Your task to perform on an android device: Open calendar and show me the first week of next month Image 0: 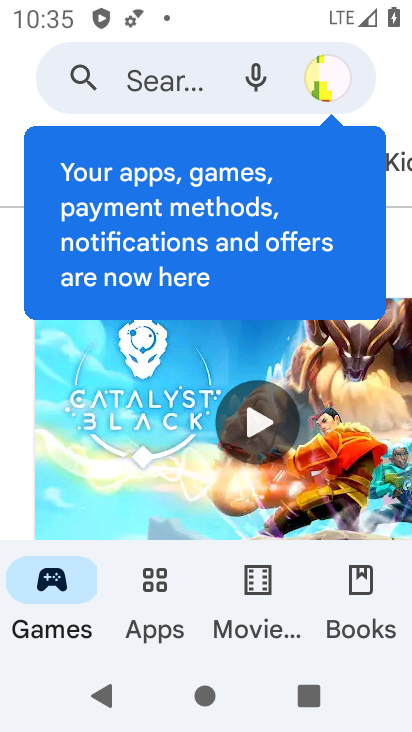
Step 0: press home button
Your task to perform on an android device: Open calendar and show me the first week of next month Image 1: 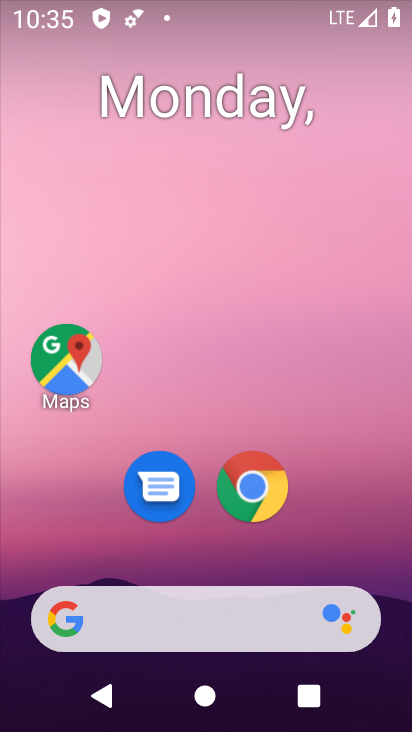
Step 1: drag from (60, 566) to (318, 177)
Your task to perform on an android device: Open calendar and show me the first week of next month Image 2: 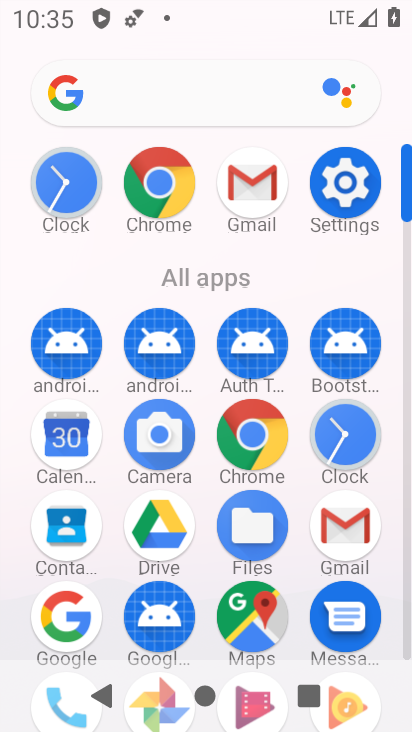
Step 2: click (75, 449)
Your task to perform on an android device: Open calendar and show me the first week of next month Image 3: 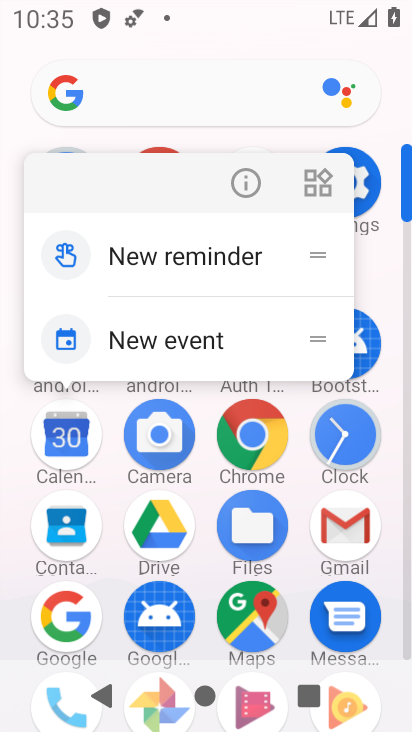
Step 3: press back button
Your task to perform on an android device: Open calendar and show me the first week of next month Image 4: 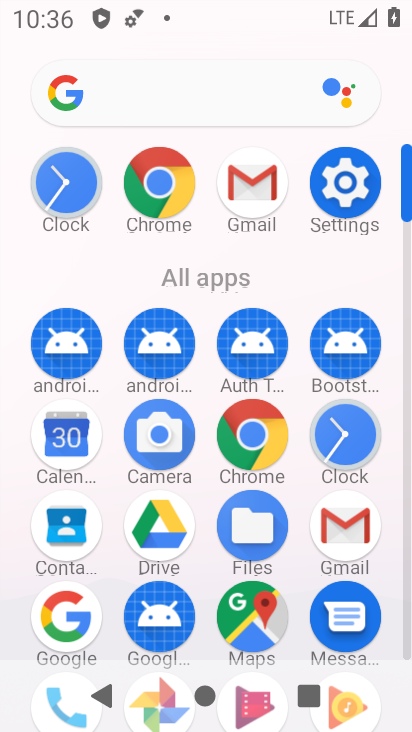
Step 4: click (62, 436)
Your task to perform on an android device: Open calendar and show me the first week of next month Image 5: 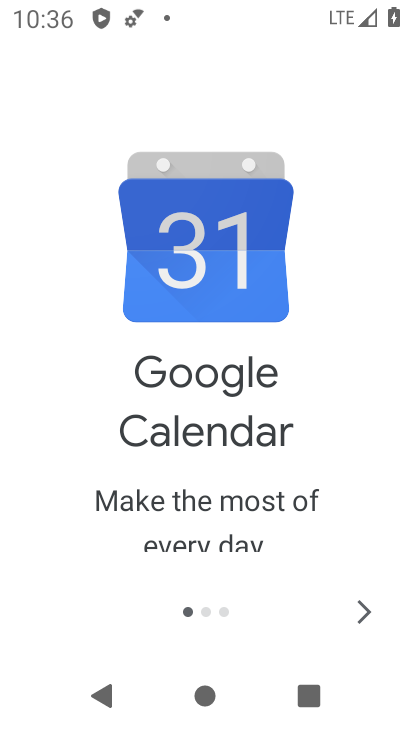
Step 5: click (366, 603)
Your task to perform on an android device: Open calendar and show me the first week of next month Image 6: 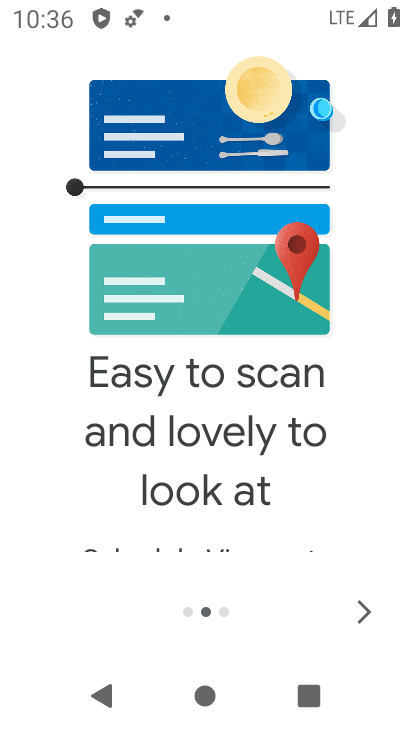
Step 6: click (366, 603)
Your task to perform on an android device: Open calendar and show me the first week of next month Image 7: 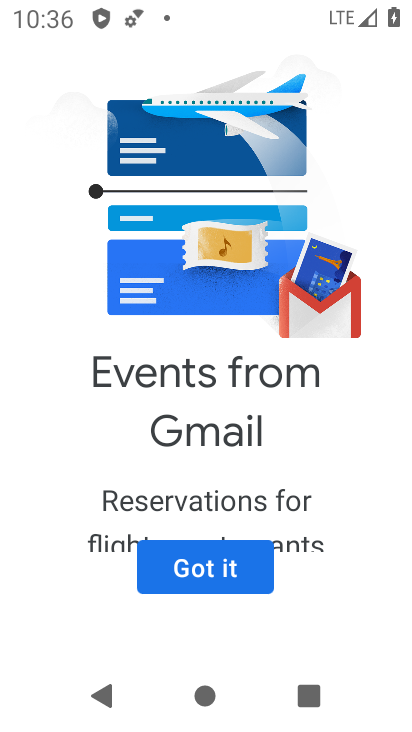
Step 7: click (228, 567)
Your task to perform on an android device: Open calendar and show me the first week of next month Image 8: 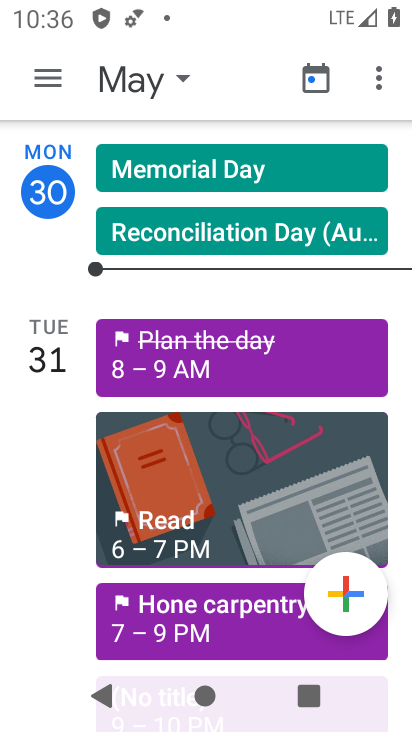
Step 8: click (155, 74)
Your task to perform on an android device: Open calendar and show me the first week of next month Image 9: 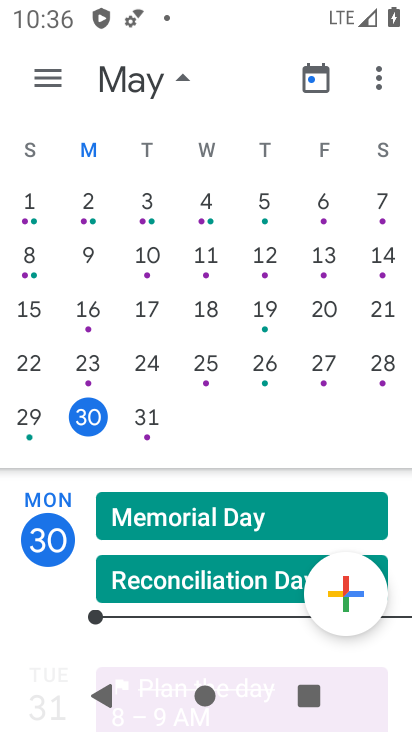
Step 9: drag from (378, 245) to (0, 279)
Your task to perform on an android device: Open calendar and show me the first week of next month Image 10: 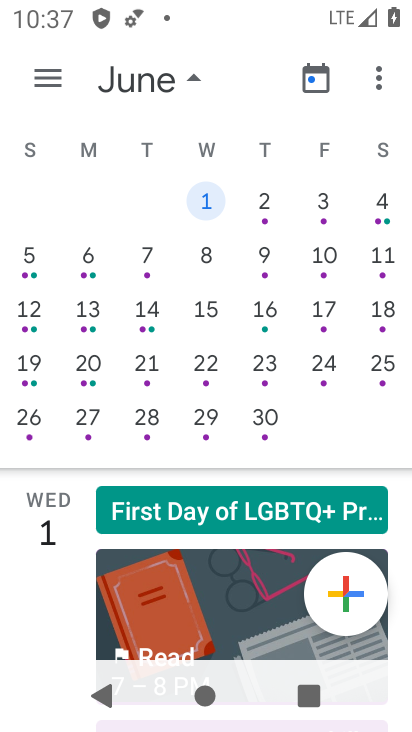
Step 10: click (273, 207)
Your task to perform on an android device: Open calendar and show me the first week of next month Image 11: 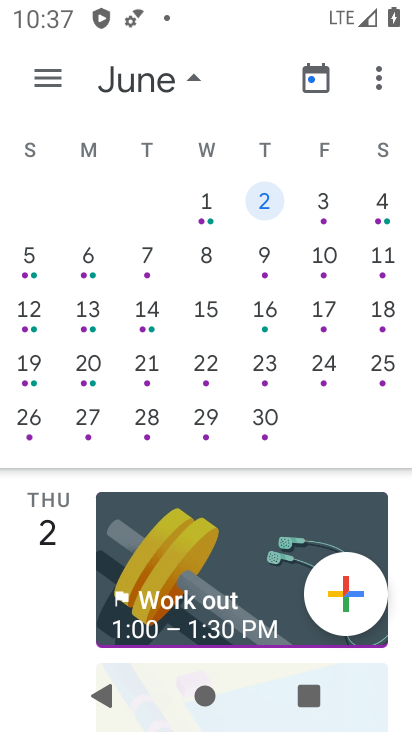
Step 11: click (325, 203)
Your task to perform on an android device: Open calendar and show me the first week of next month Image 12: 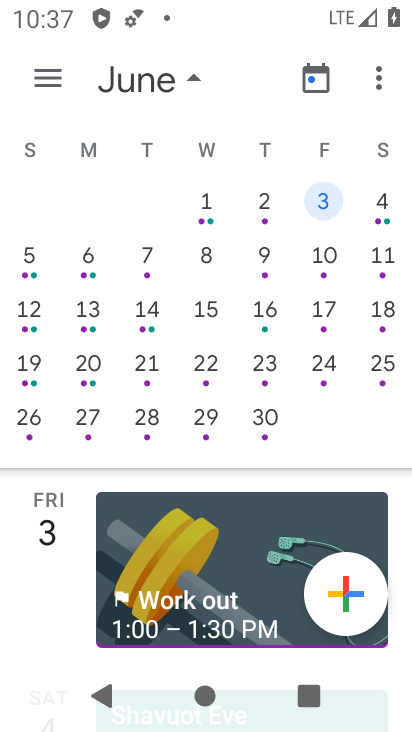
Step 12: task complete